Your task to perform on an android device: Open network settings Image 0: 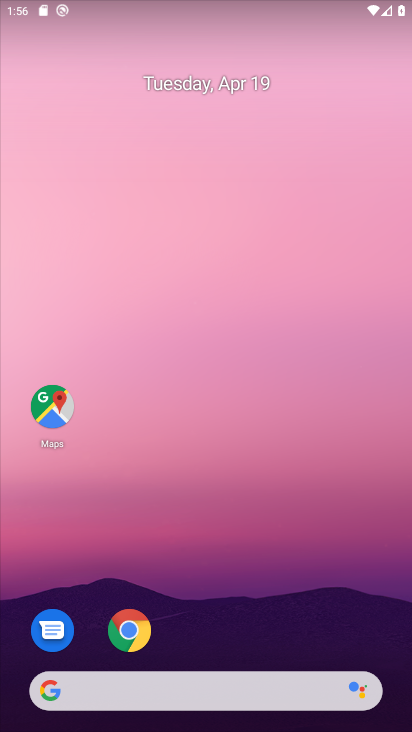
Step 0: drag from (245, 616) to (245, 29)
Your task to perform on an android device: Open network settings Image 1: 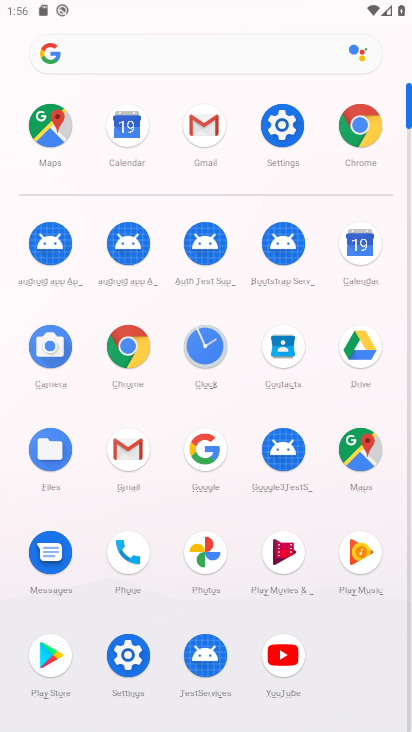
Step 1: click (269, 121)
Your task to perform on an android device: Open network settings Image 2: 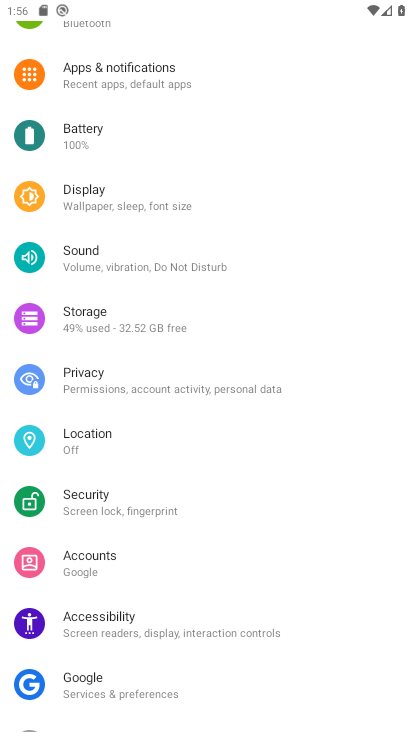
Step 2: drag from (188, 162) to (237, 325)
Your task to perform on an android device: Open network settings Image 3: 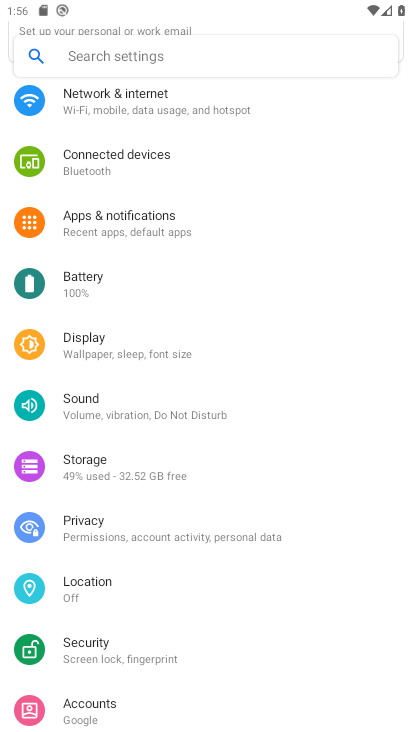
Step 3: click (221, 107)
Your task to perform on an android device: Open network settings Image 4: 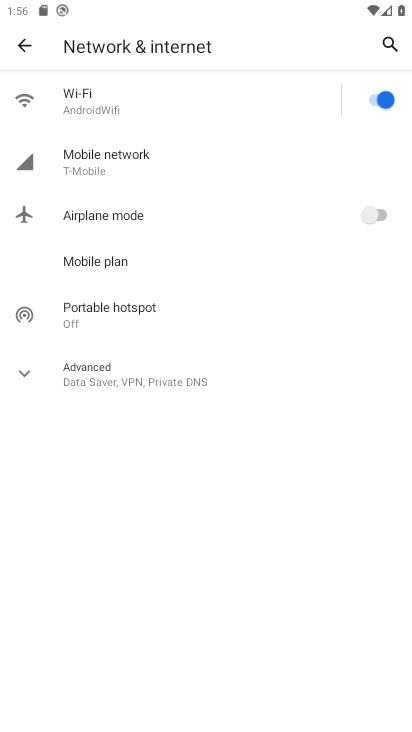
Step 4: click (143, 146)
Your task to perform on an android device: Open network settings Image 5: 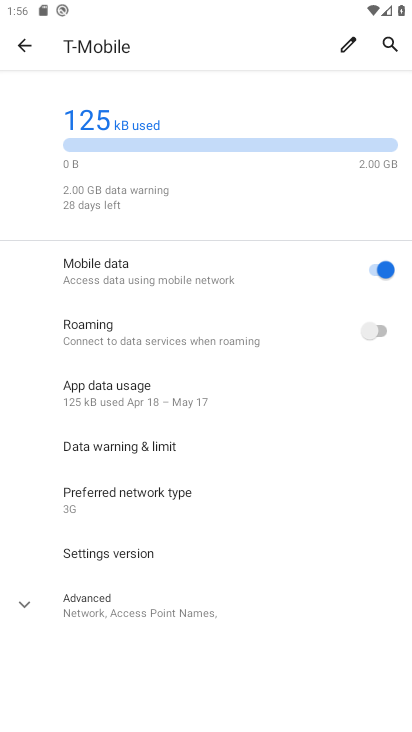
Step 5: task complete